Your task to perform on an android device: open wifi settings Image 0: 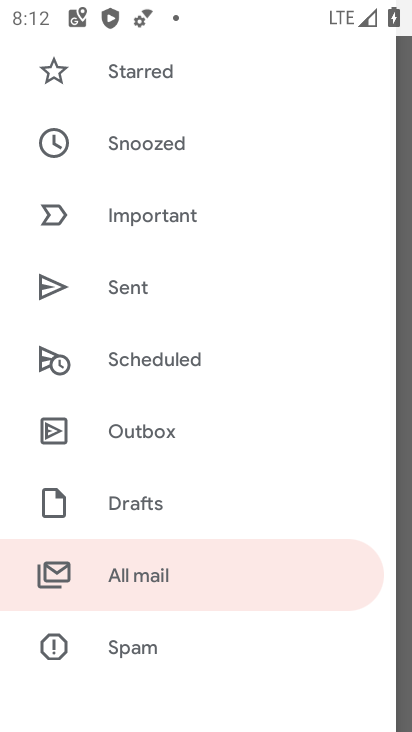
Step 0: press home button
Your task to perform on an android device: open wifi settings Image 1: 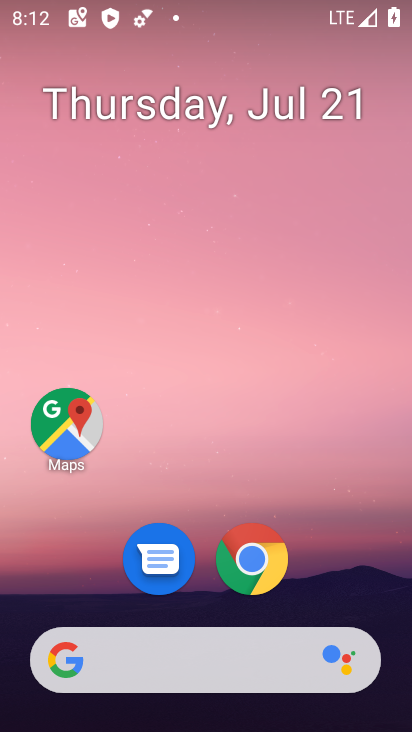
Step 1: drag from (278, 641) to (304, 212)
Your task to perform on an android device: open wifi settings Image 2: 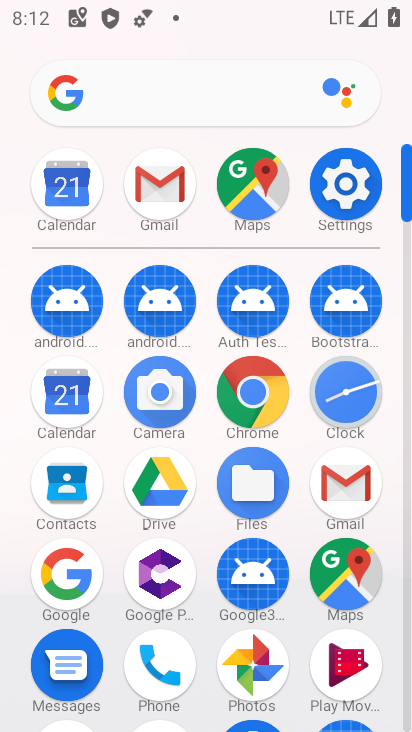
Step 2: click (352, 204)
Your task to perform on an android device: open wifi settings Image 3: 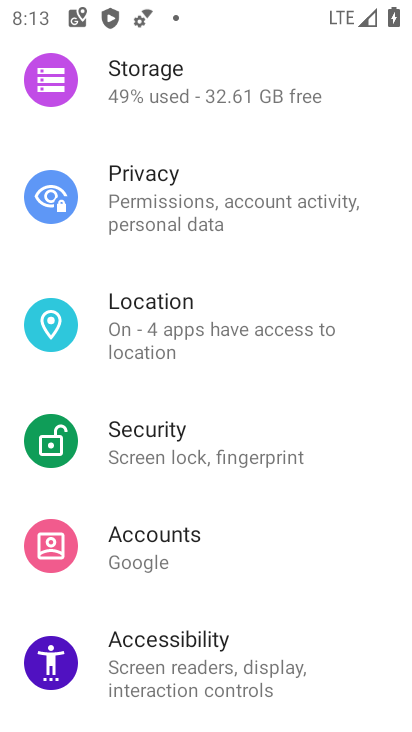
Step 3: drag from (266, 243) to (261, 514)
Your task to perform on an android device: open wifi settings Image 4: 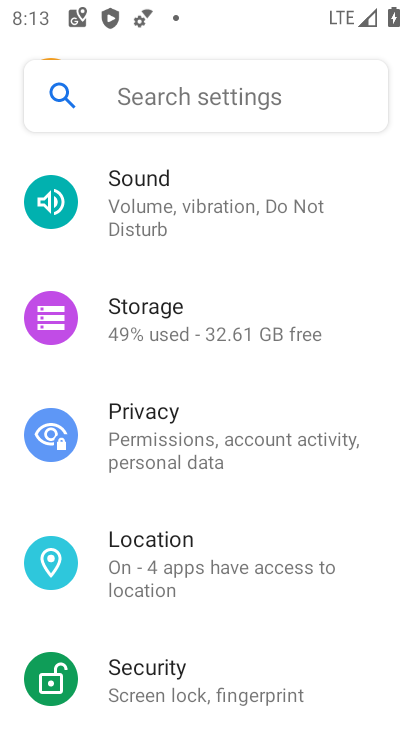
Step 4: drag from (242, 284) to (237, 729)
Your task to perform on an android device: open wifi settings Image 5: 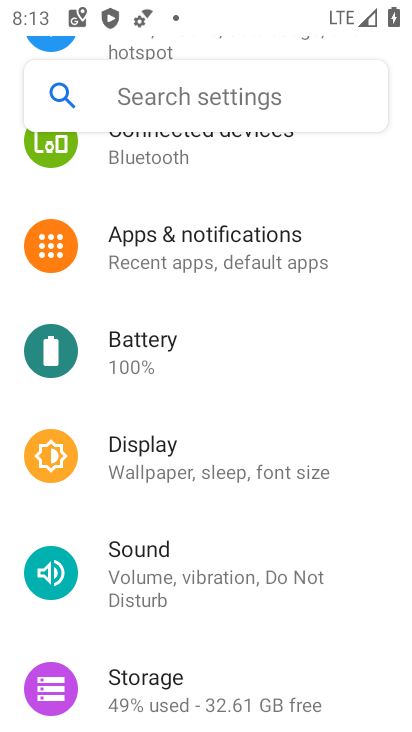
Step 5: drag from (237, 343) to (247, 724)
Your task to perform on an android device: open wifi settings Image 6: 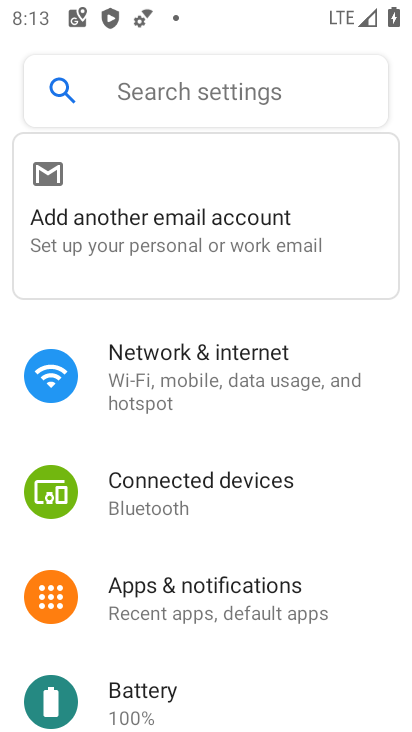
Step 6: click (239, 366)
Your task to perform on an android device: open wifi settings Image 7: 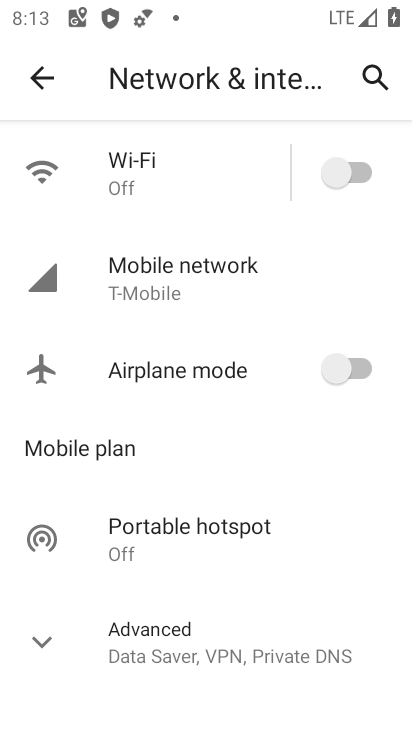
Step 7: click (179, 178)
Your task to perform on an android device: open wifi settings Image 8: 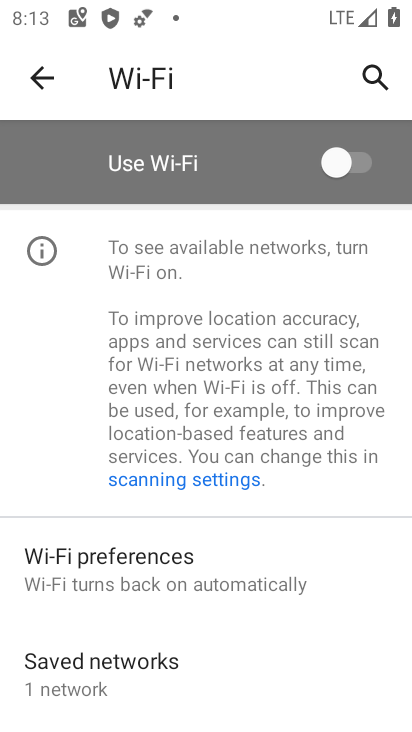
Step 8: task complete